Your task to perform on an android device: Open the phone app and click the voicemail tab. Image 0: 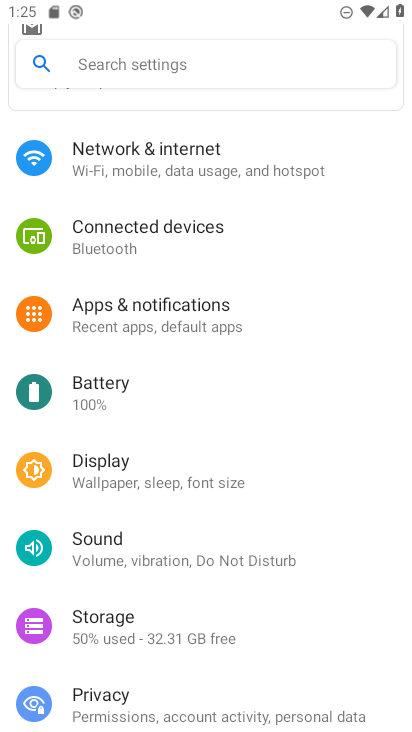
Step 0: press back button
Your task to perform on an android device: Open the phone app and click the voicemail tab. Image 1: 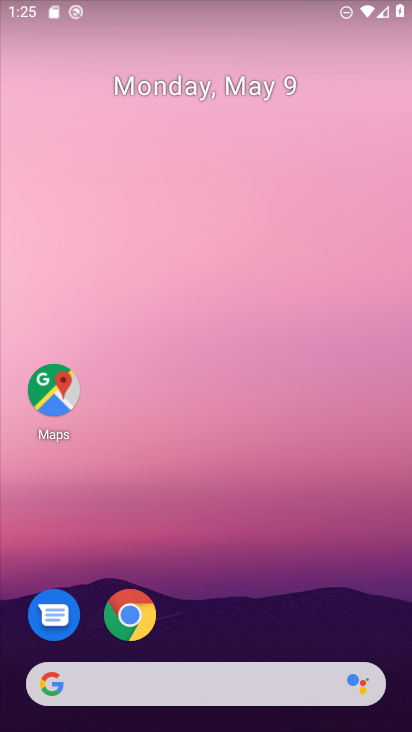
Step 1: drag from (284, 623) to (246, 85)
Your task to perform on an android device: Open the phone app and click the voicemail tab. Image 2: 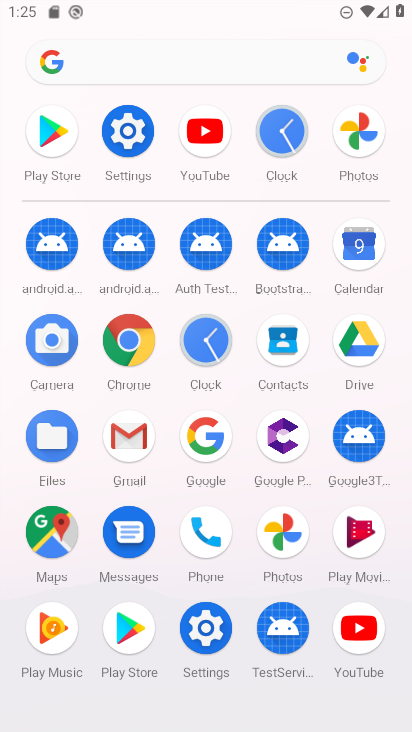
Step 2: click (201, 529)
Your task to perform on an android device: Open the phone app and click the voicemail tab. Image 3: 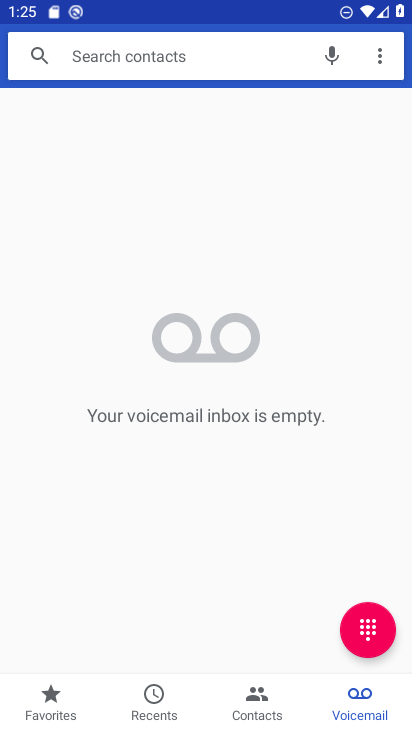
Step 3: click (363, 695)
Your task to perform on an android device: Open the phone app and click the voicemail tab. Image 4: 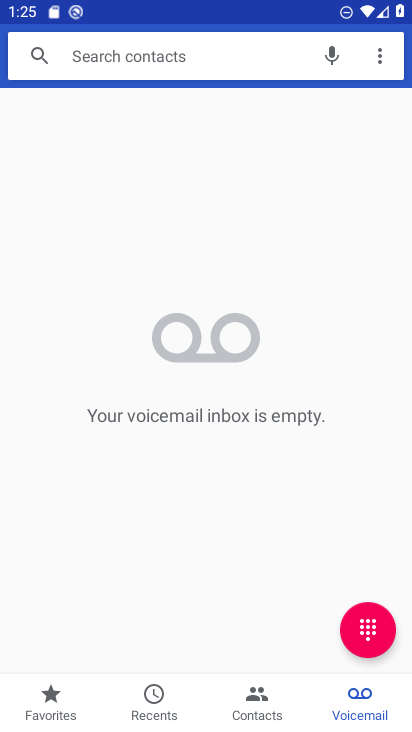
Step 4: task complete